Your task to perform on an android device: Open accessibility settings Image 0: 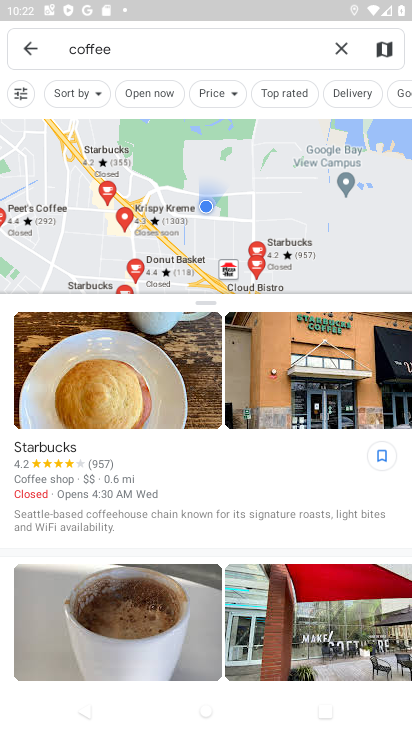
Step 0: press home button
Your task to perform on an android device: Open accessibility settings Image 1: 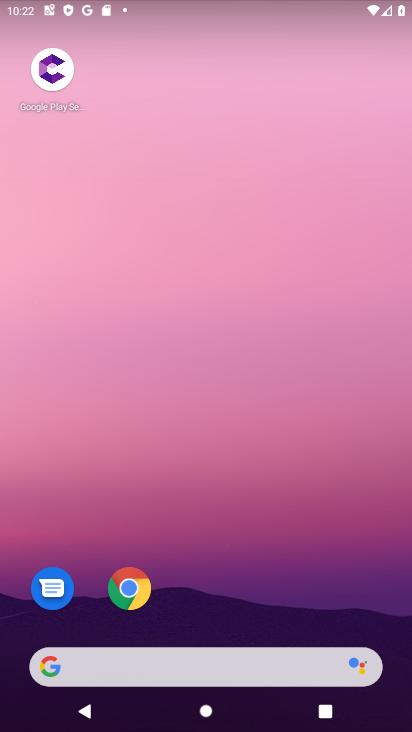
Step 1: drag from (266, 564) to (391, 64)
Your task to perform on an android device: Open accessibility settings Image 2: 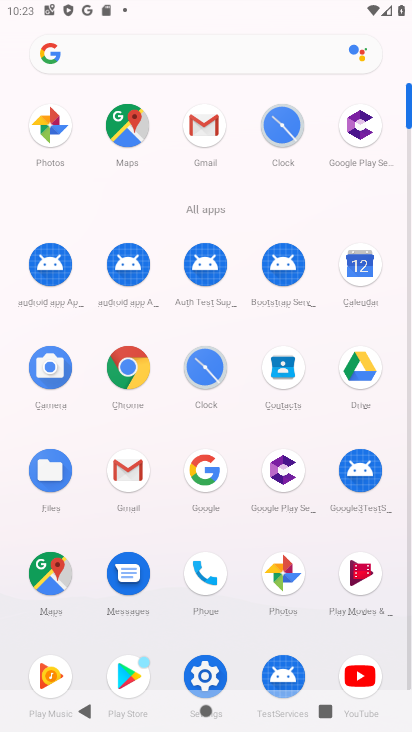
Step 2: click (199, 660)
Your task to perform on an android device: Open accessibility settings Image 3: 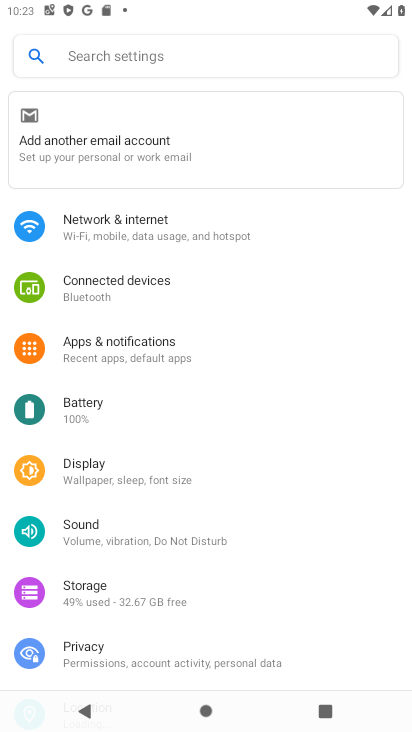
Step 3: drag from (188, 552) to (226, 212)
Your task to perform on an android device: Open accessibility settings Image 4: 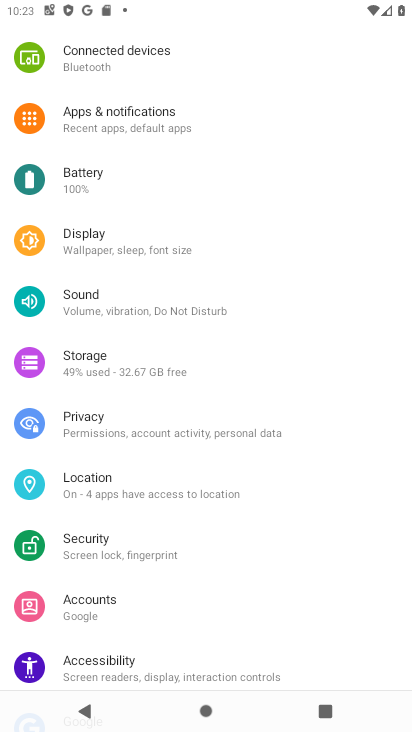
Step 4: click (127, 656)
Your task to perform on an android device: Open accessibility settings Image 5: 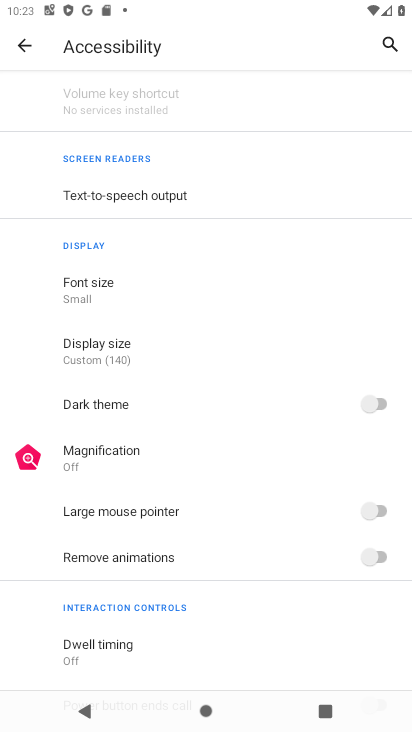
Step 5: task complete